Your task to perform on an android device: What's the weather going to be this weekend? Image 0: 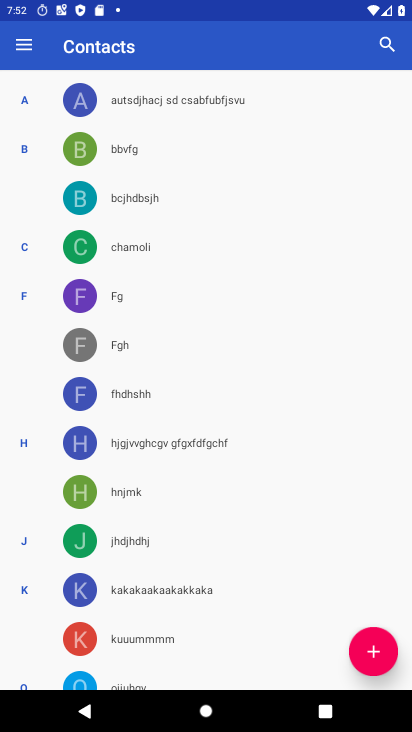
Step 0: press home button
Your task to perform on an android device: What's the weather going to be this weekend? Image 1: 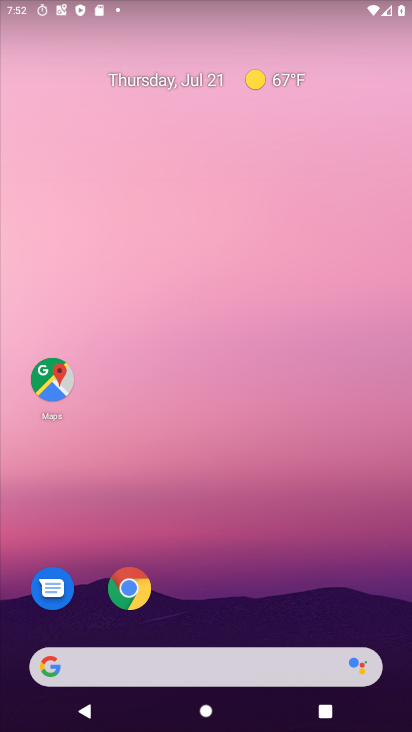
Step 1: drag from (173, 647) to (272, 25)
Your task to perform on an android device: What's the weather going to be this weekend? Image 2: 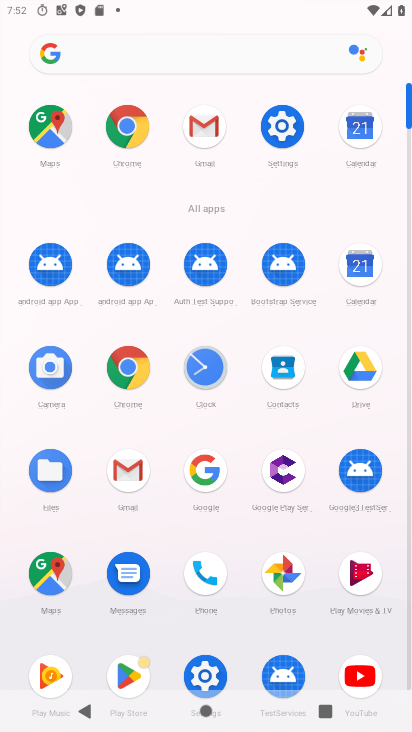
Step 2: click (194, 460)
Your task to perform on an android device: What's the weather going to be this weekend? Image 3: 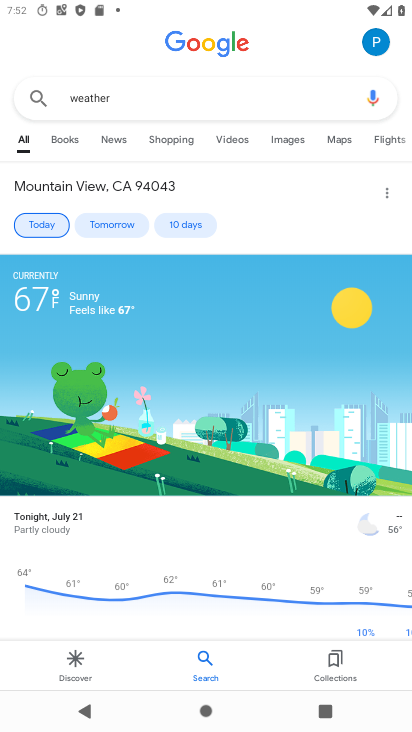
Step 3: click (195, 225)
Your task to perform on an android device: What's the weather going to be this weekend? Image 4: 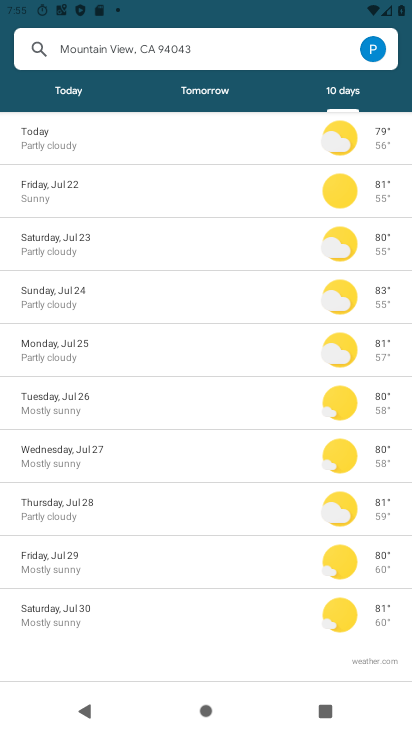
Step 4: task complete